Your task to perform on an android device: set the stopwatch Image 0: 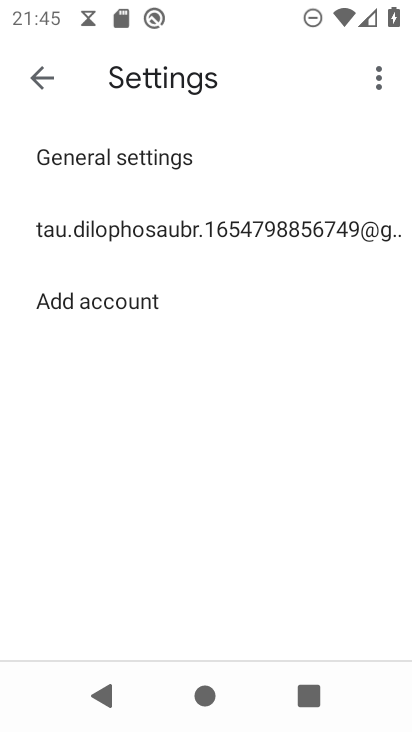
Step 0: press home button
Your task to perform on an android device: set the stopwatch Image 1: 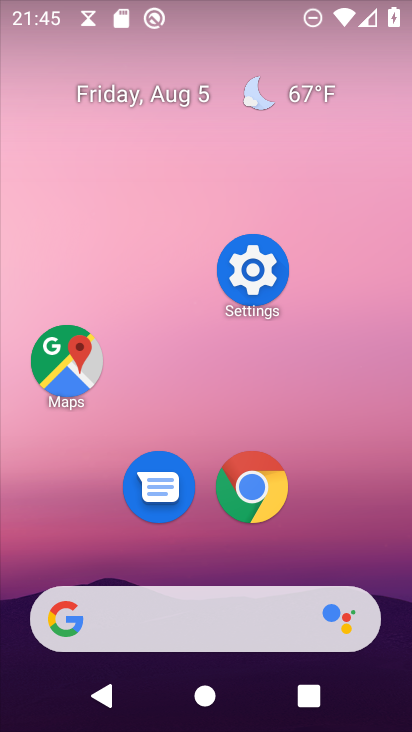
Step 1: drag from (174, 610) to (325, 84)
Your task to perform on an android device: set the stopwatch Image 2: 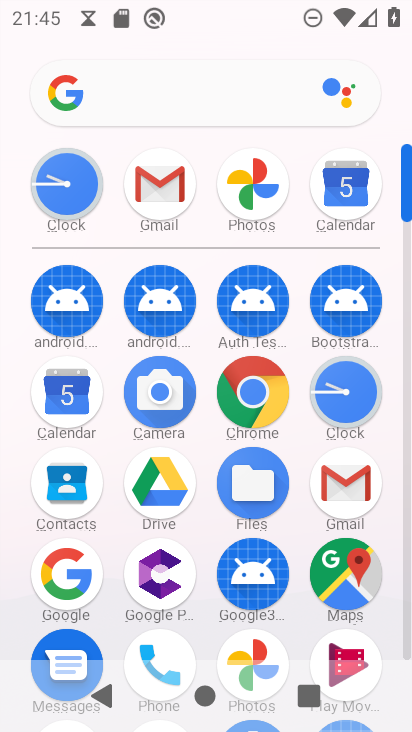
Step 2: click (343, 389)
Your task to perform on an android device: set the stopwatch Image 3: 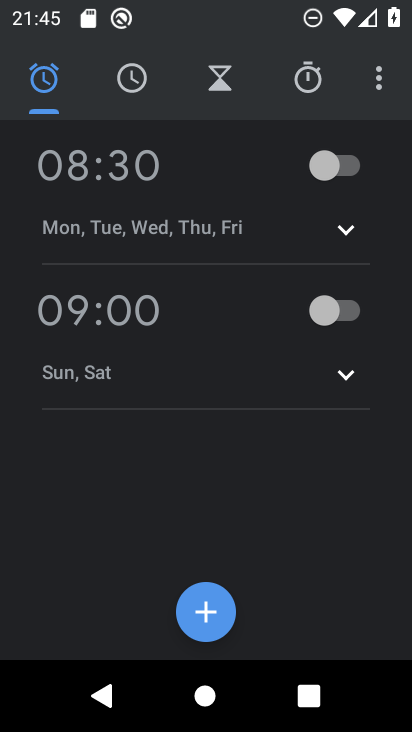
Step 3: click (308, 77)
Your task to perform on an android device: set the stopwatch Image 4: 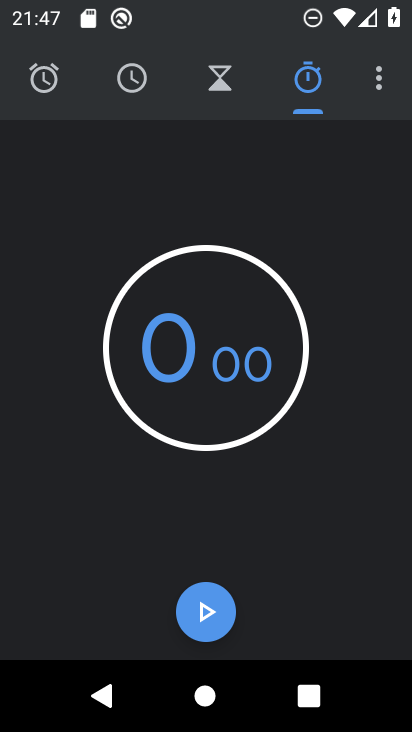
Step 4: task complete